Your task to perform on an android device: Search for Italian restaurants on Maps Image 0: 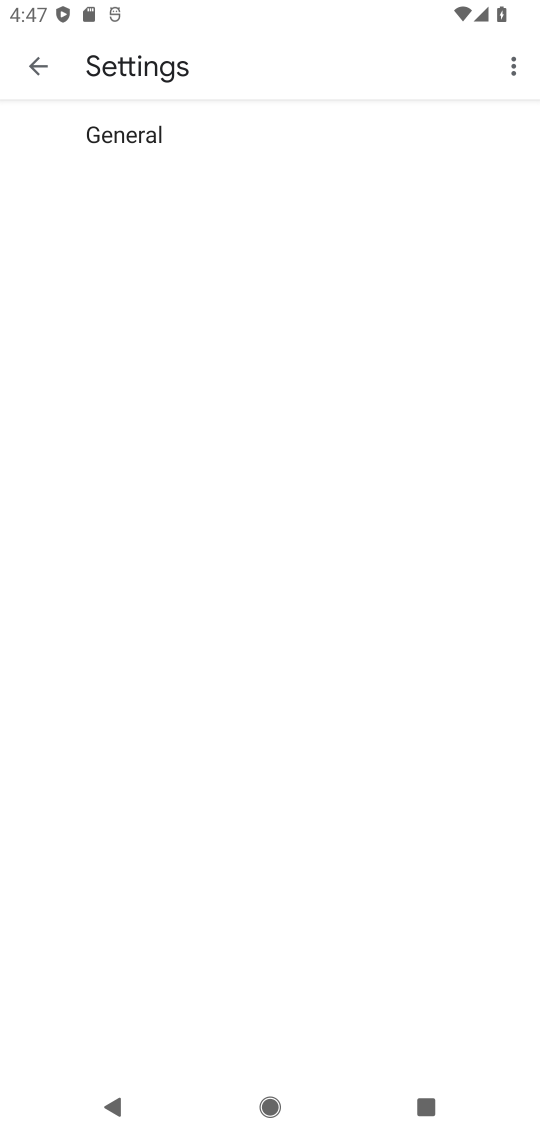
Step 0: press home button
Your task to perform on an android device: Search for Italian restaurants on Maps Image 1: 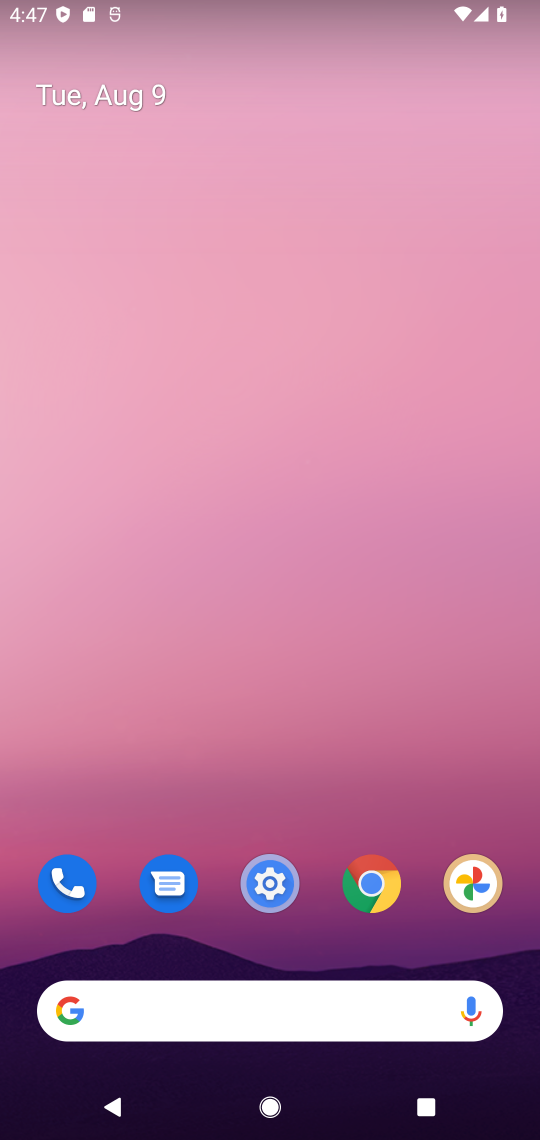
Step 1: drag from (276, 822) to (252, 288)
Your task to perform on an android device: Search for Italian restaurants on Maps Image 2: 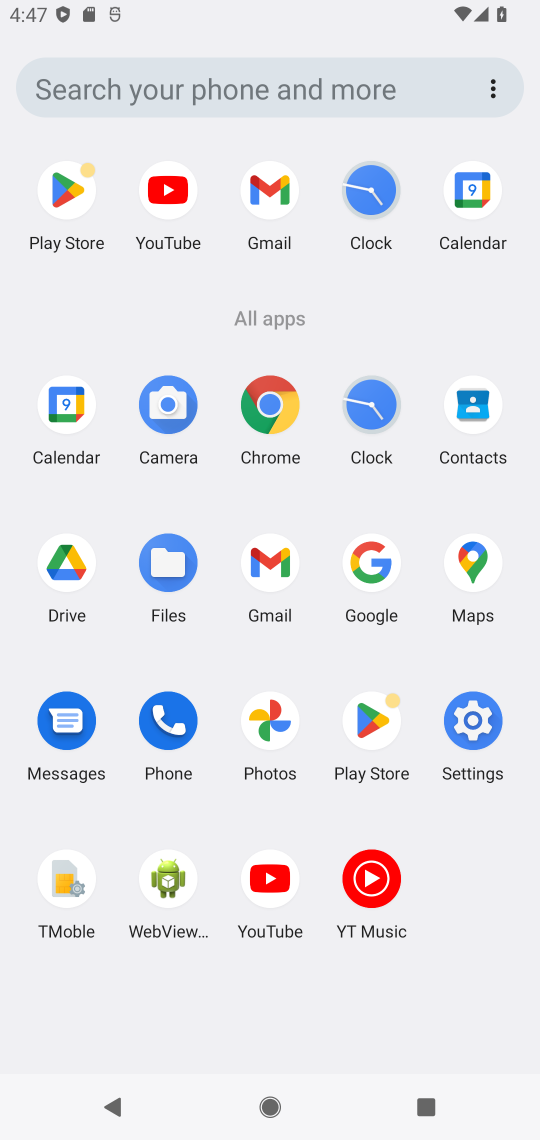
Step 2: click (451, 557)
Your task to perform on an android device: Search for Italian restaurants on Maps Image 3: 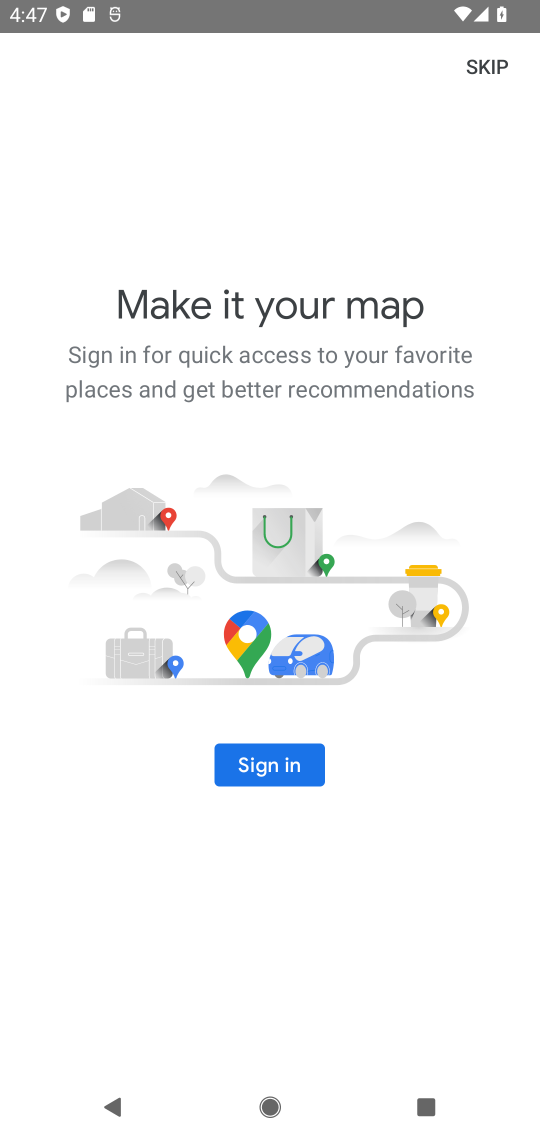
Step 3: click (258, 763)
Your task to perform on an android device: Search for Italian restaurants on Maps Image 4: 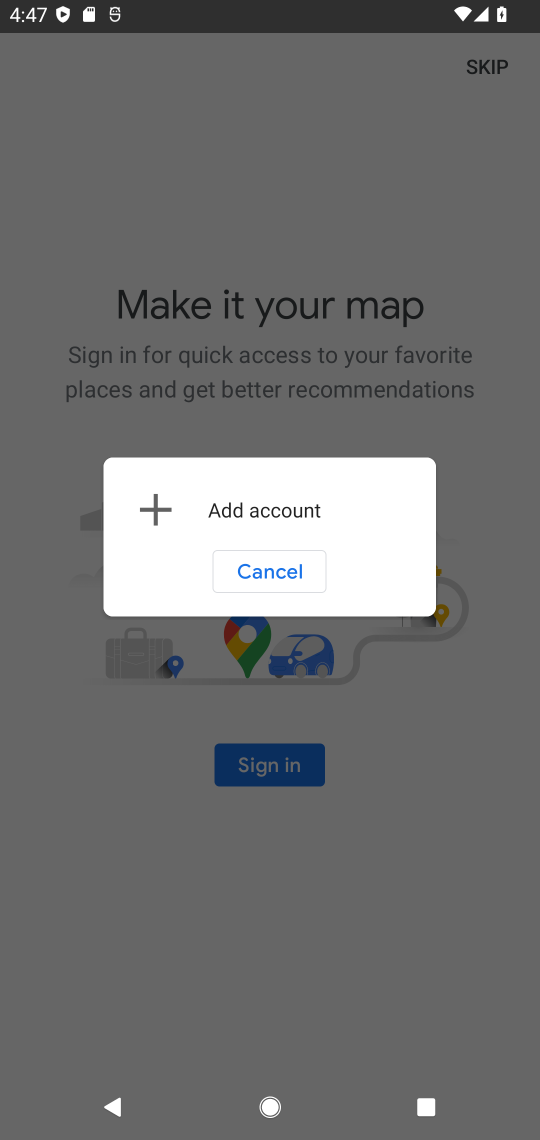
Step 4: click (263, 575)
Your task to perform on an android device: Search for Italian restaurants on Maps Image 5: 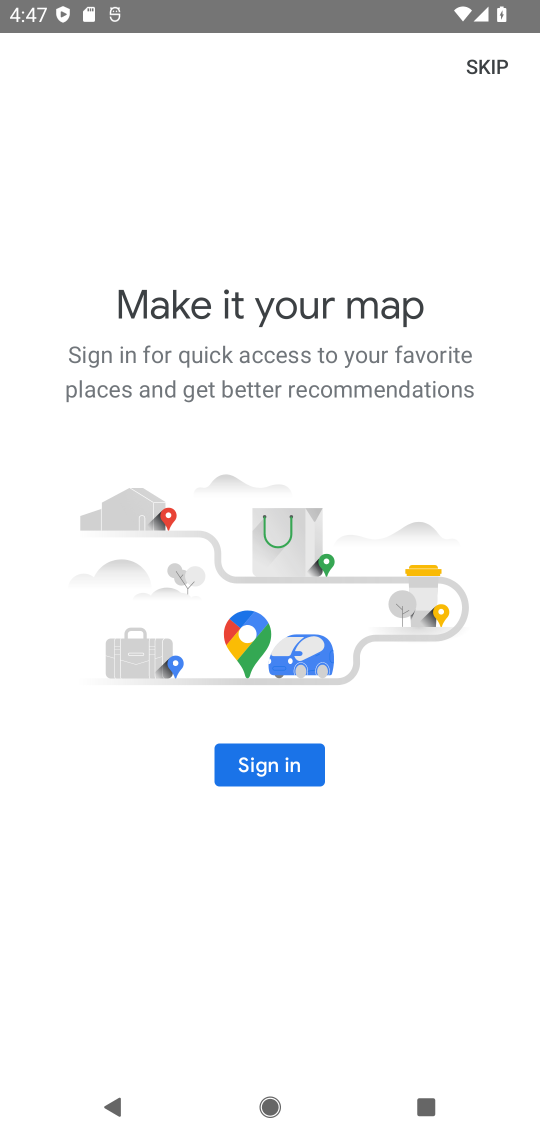
Step 5: click (464, 58)
Your task to perform on an android device: Search for Italian restaurants on Maps Image 6: 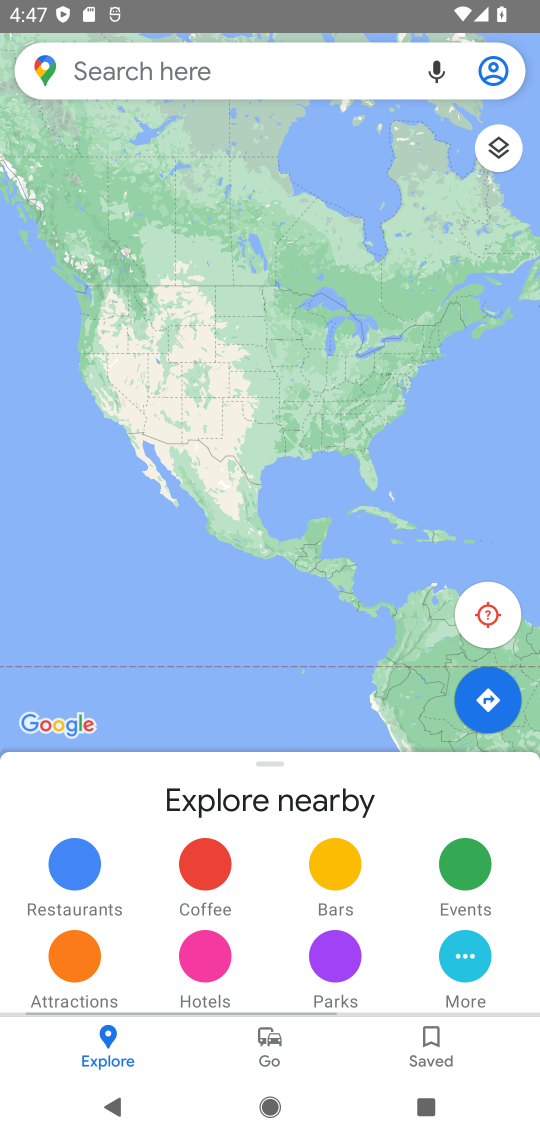
Step 6: click (265, 60)
Your task to perform on an android device: Search for Italian restaurants on Maps Image 7: 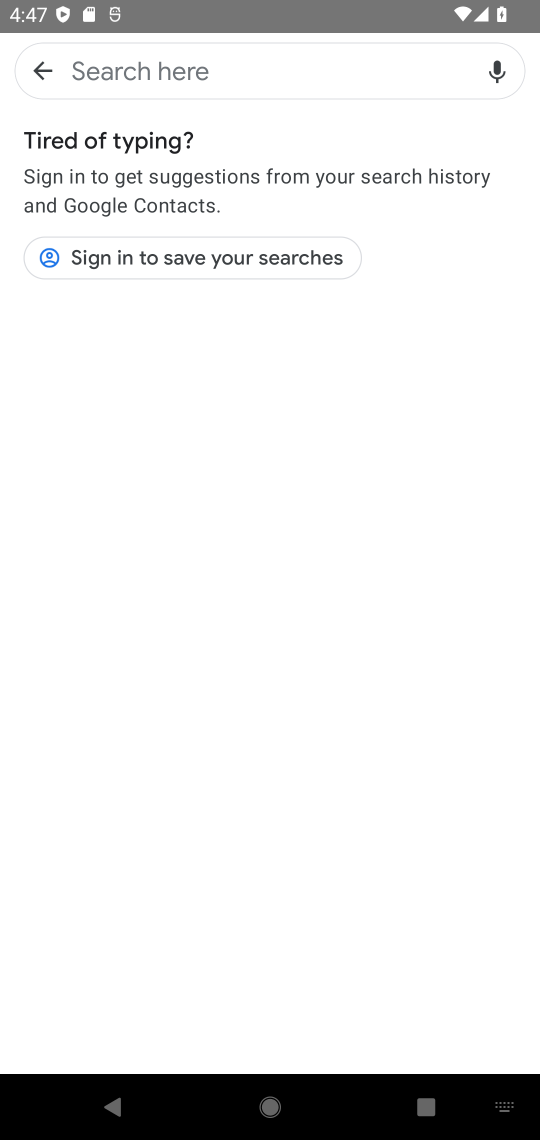
Step 7: click (126, 61)
Your task to perform on an android device: Search for Italian restaurants on Maps Image 8: 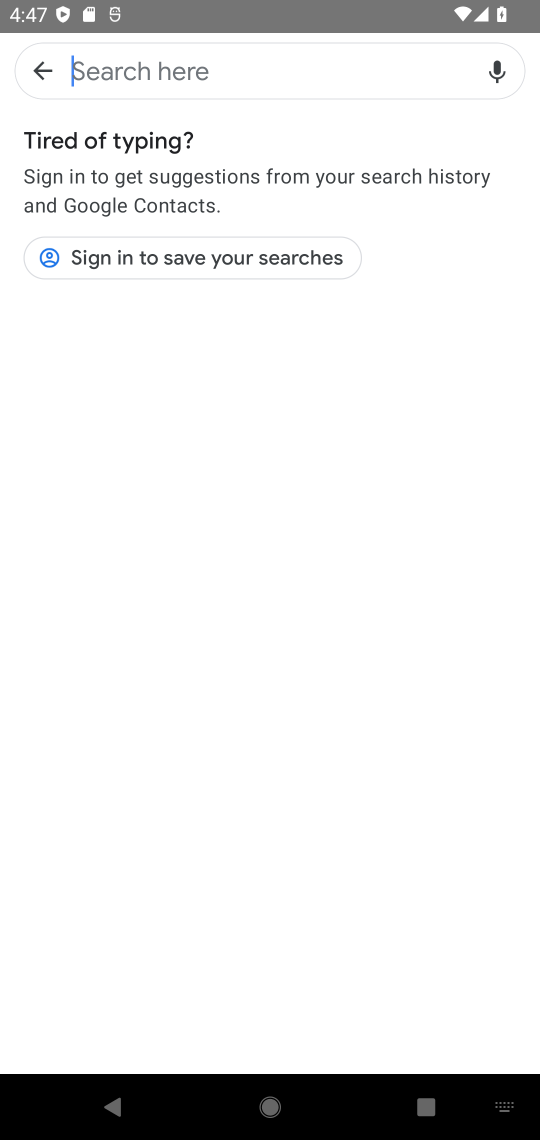
Step 8: type "Italian restaurants "
Your task to perform on an android device: Search for Italian restaurants on Maps Image 9: 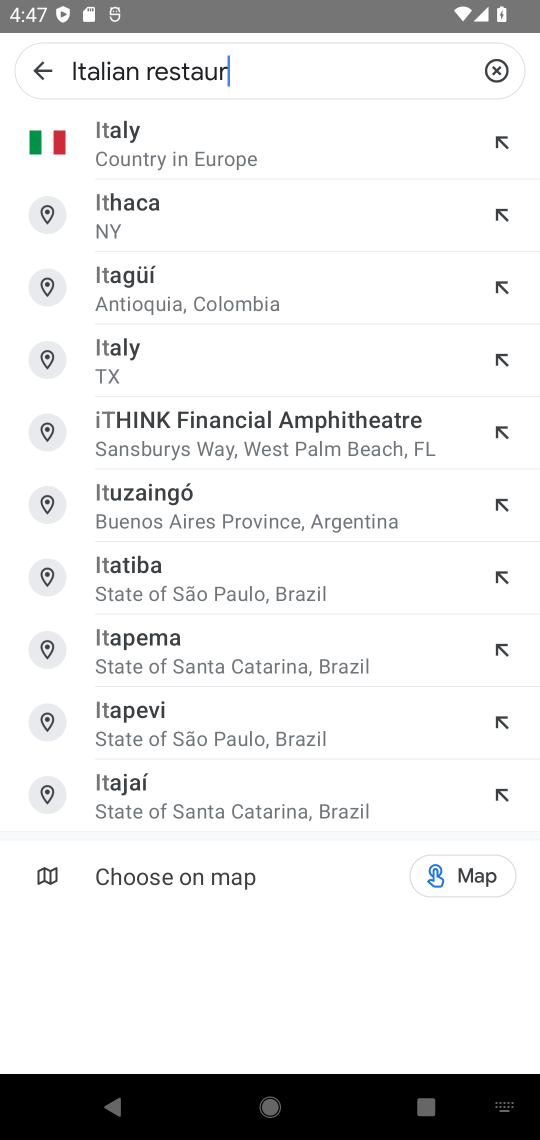
Step 9: type ""
Your task to perform on an android device: Search for Italian restaurants on Maps Image 10: 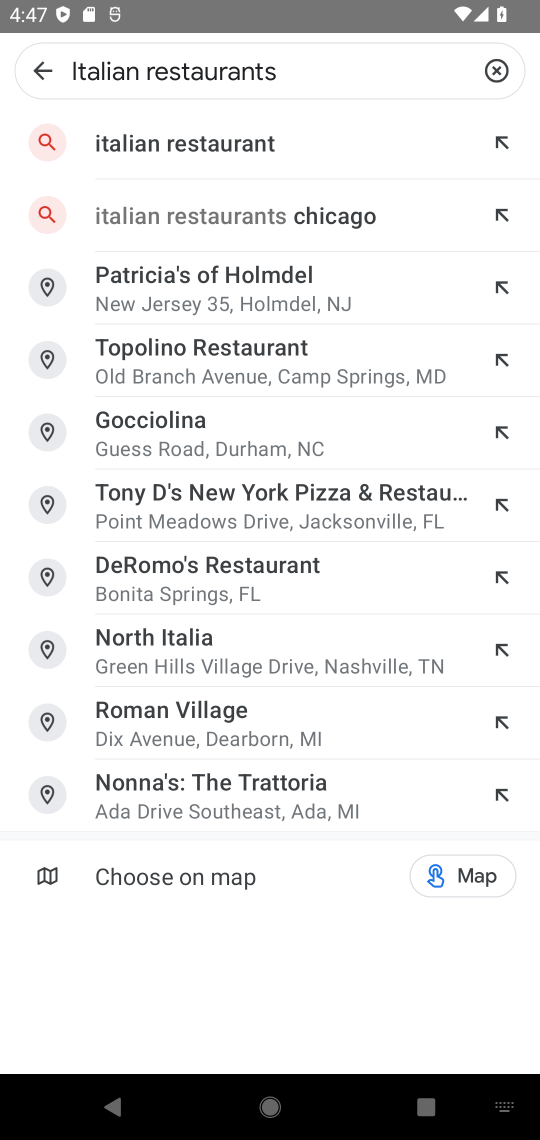
Step 10: click (215, 162)
Your task to perform on an android device: Search for Italian restaurants on Maps Image 11: 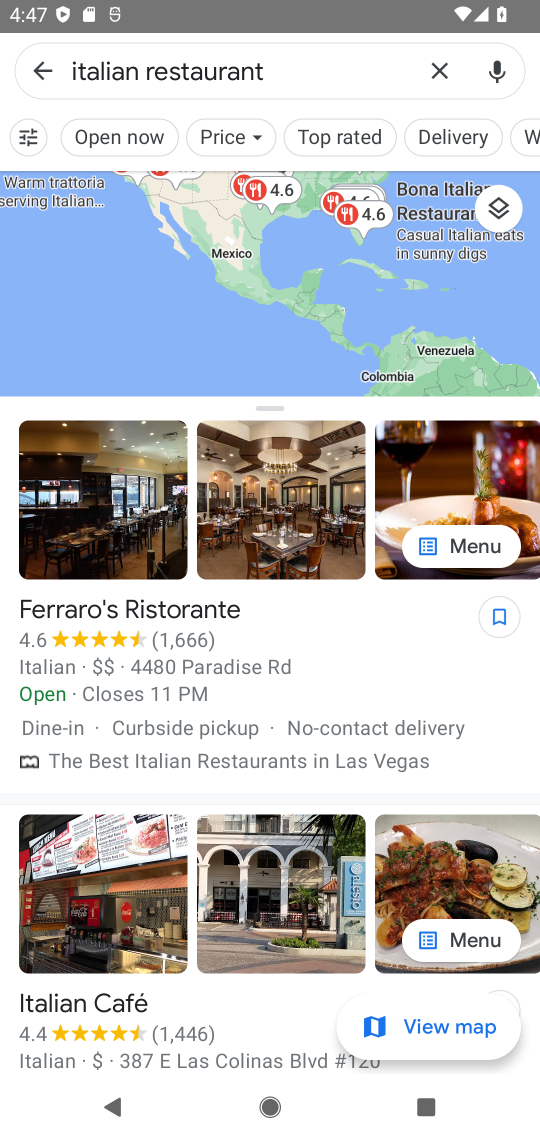
Step 11: task complete